Your task to perform on an android device: Is it going to rain this weekend? Image 0: 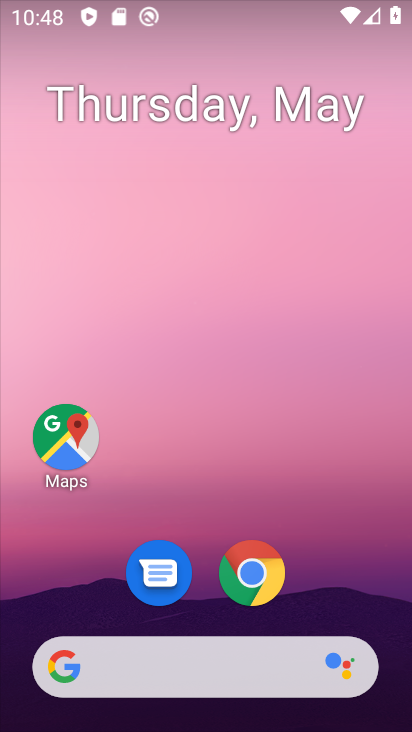
Step 0: drag from (6, 525) to (328, 432)
Your task to perform on an android device: Is it going to rain this weekend? Image 1: 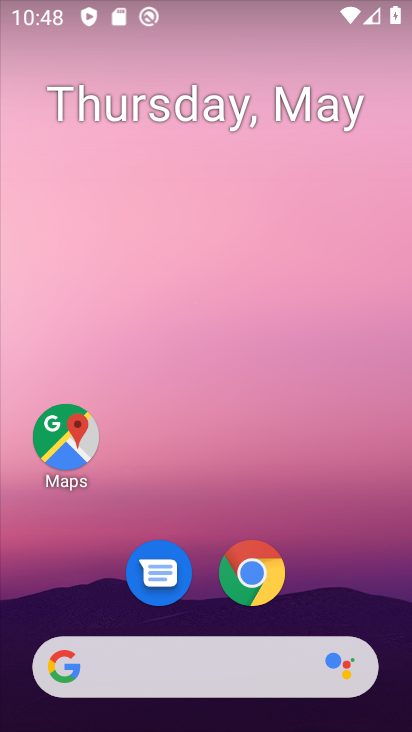
Step 1: drag from (1, 347) to (408, 221)
Your task to perform on an android device: Is it going to rain this weekend? Image 2: 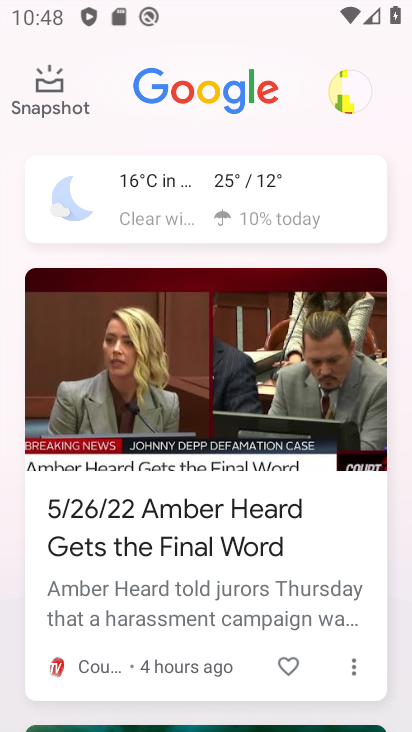
Step 2: click (277, 223)
Your task to perform on an android device: Is it going to rain this weekend? Image 3: 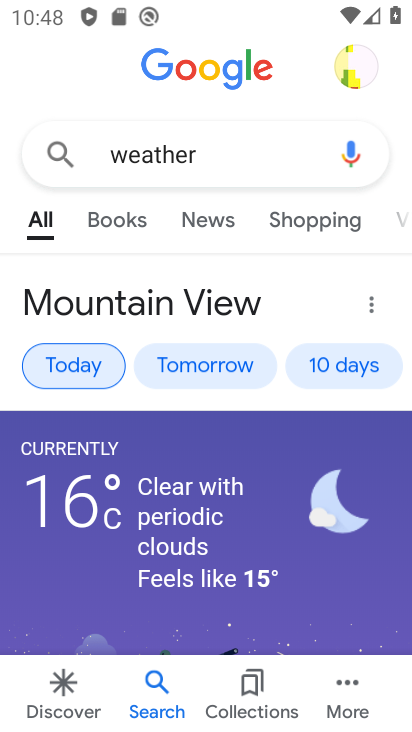
Step 3: click (342, 371)
Your task to perform on an android device: Is it going to rain this weekend? Image 4: 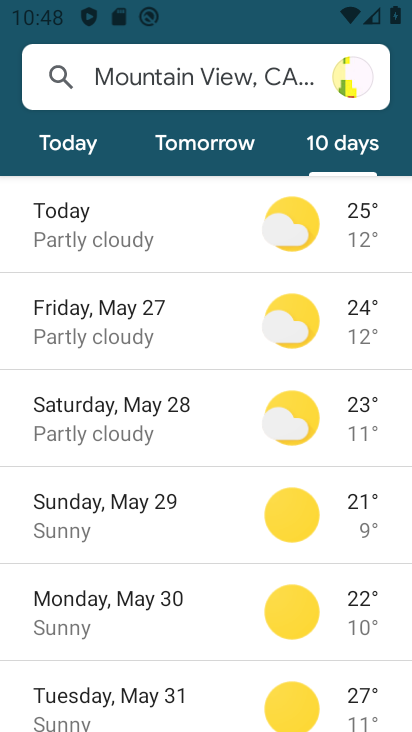
Step 4: task complete